Your task to perform on an android device: turn on the 24-hour format for clock Image 0: 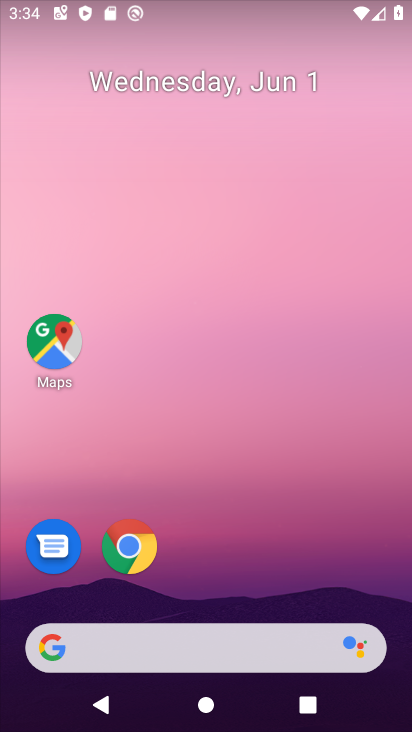
Step 0: drag from (323, 527) to (284, 145)
Your task to perform on an android device: turn on the 24-hour format for clock Image 1: 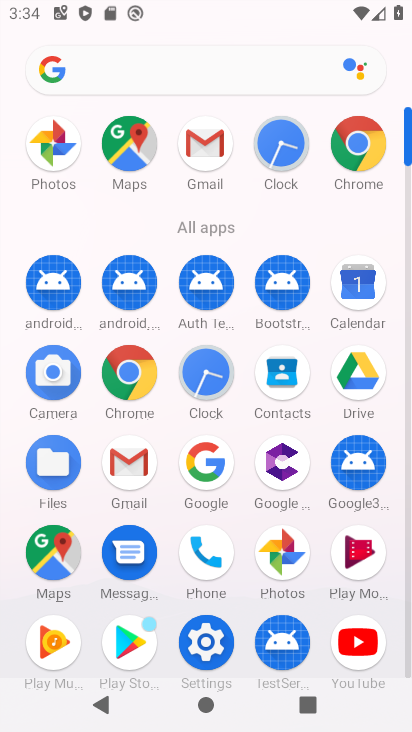
Step 1: click (192, 388)
Your task to perform on an android device: turn on the 24-hour format for clock Image 2: 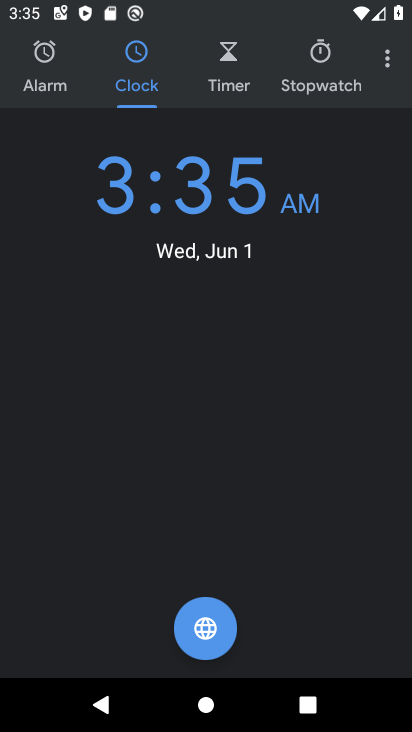
Step 2: click (392, 55)
Your task to perform on an android device: turn on the 24-hour format for clock Image 3: 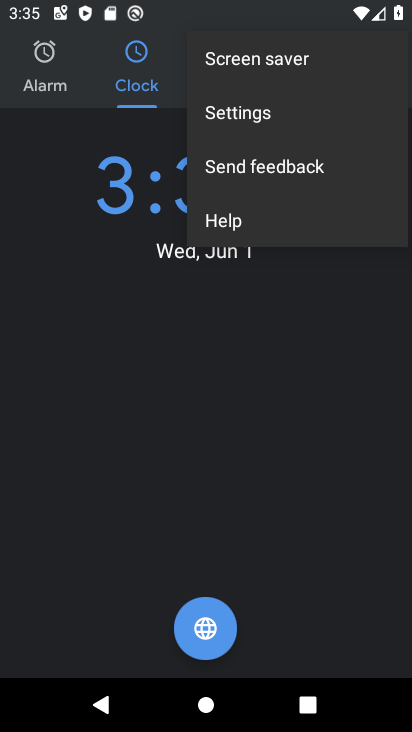
Step 3: click (235, 120)
Your task to perform on an android device: turn on the 24-hour format for clock Image 4: 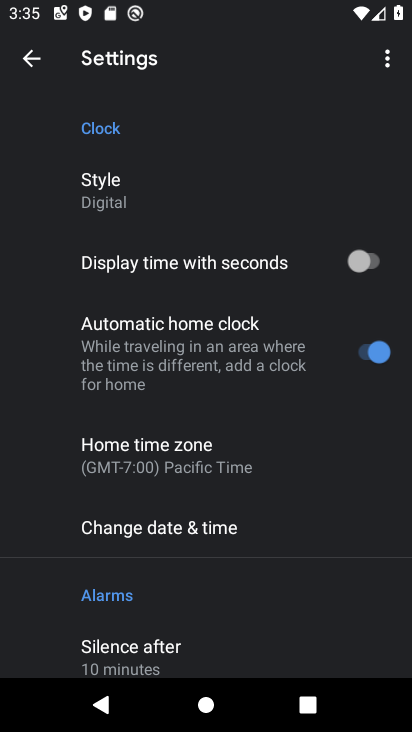
Step 4: click (235, 536)
Your task to perform on an android device: turn on the 24-hour format for clock Image 5: 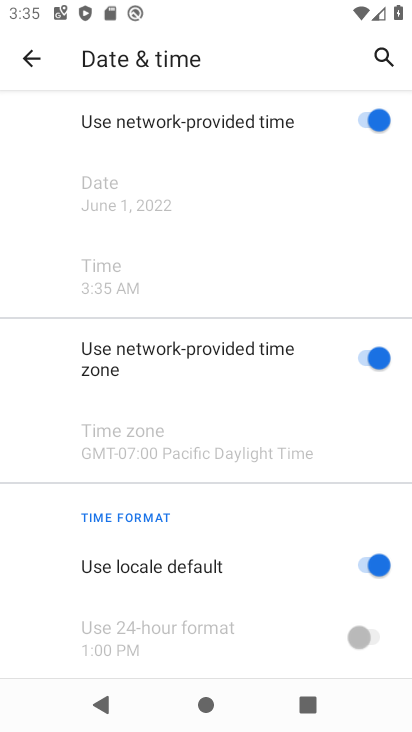
Step 5: drag from (341, 544) to (324, 310)
Your task to perform on an android device: turn on the 24-hour format for clock Image 6: 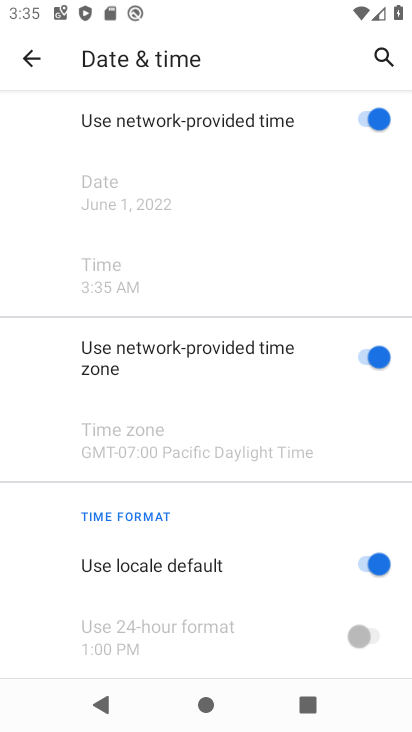
Step 6: click (375, 560)
Your task to perform on an android device: turn on the 24-hour format for clock Image 7: 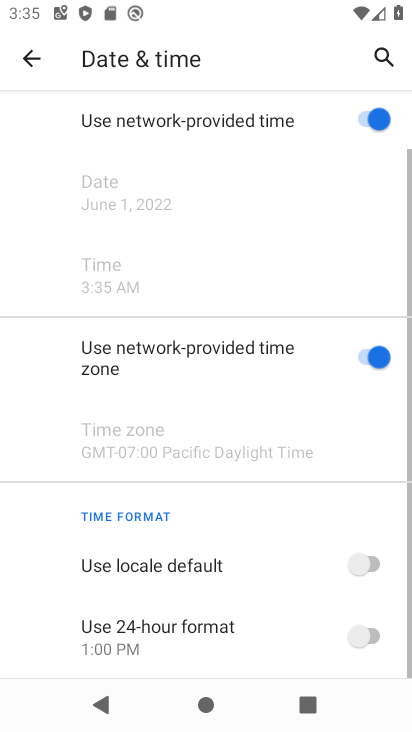
Step 7: click (359, 636)
Your task to perform on an android device: turn on the 24-hour format for clock Image 8: 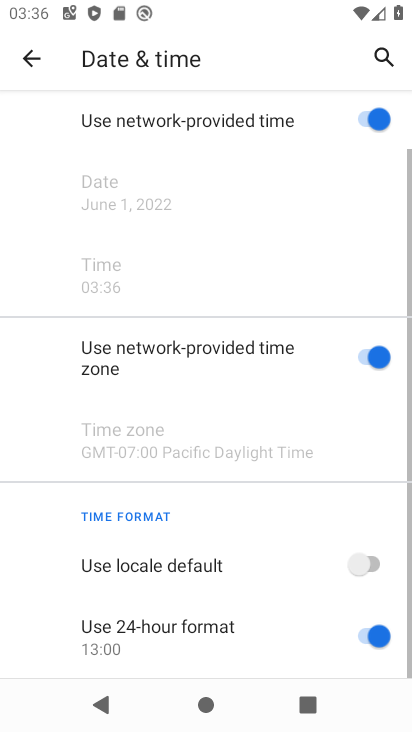
Step 8: task complete